Your task to perform on an android device: Go to internet settings Image 0: 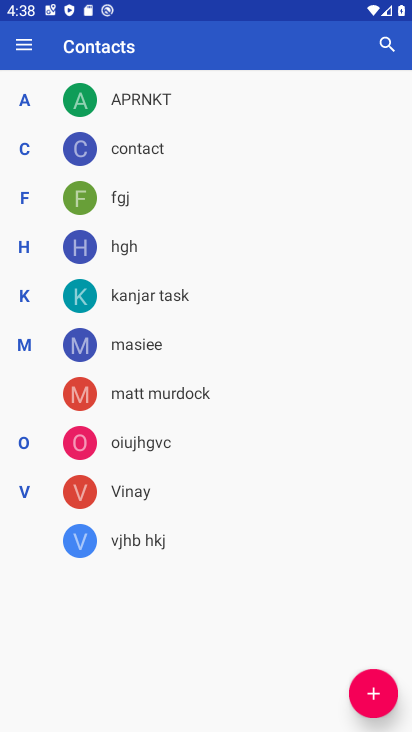
Step 0: drag from (159, 13) to (189, 592)
Your task to perform on an android device: Go to internet settings Image 1: 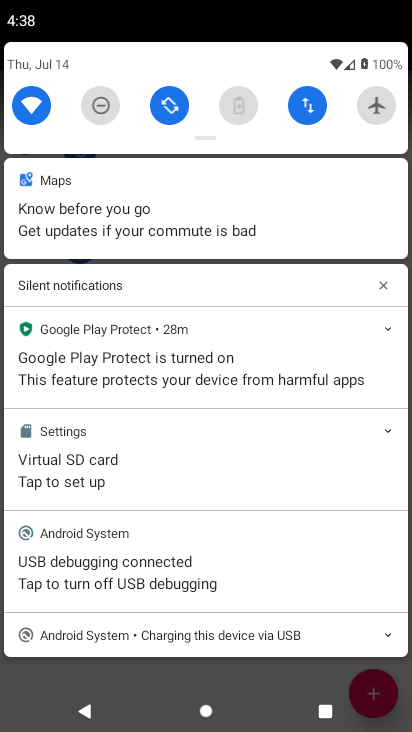
Step 1: click (299, 103)
Your task to perform on an android device: Go to internet settings Image 2: 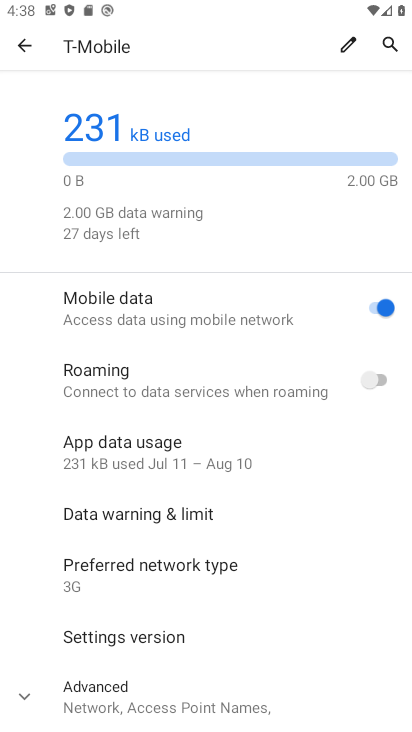
Step 2: task complete